Your task to perform on an android device: turn off notifications settings in the gmail app Image 0: 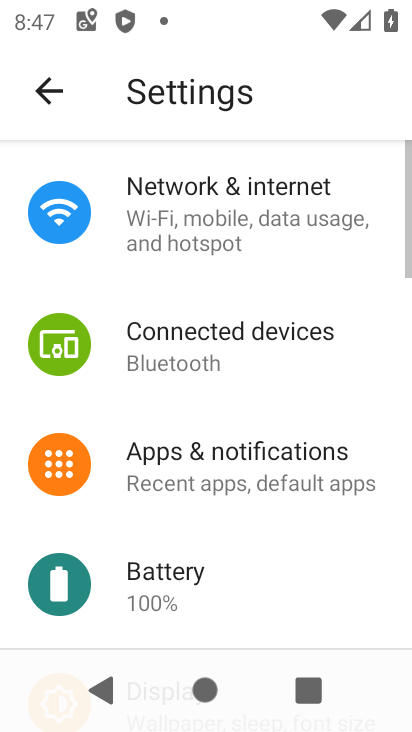
Step 0: press home button
Your task to perform on an android device: turn off notifications settings in the gmail app Image 1: 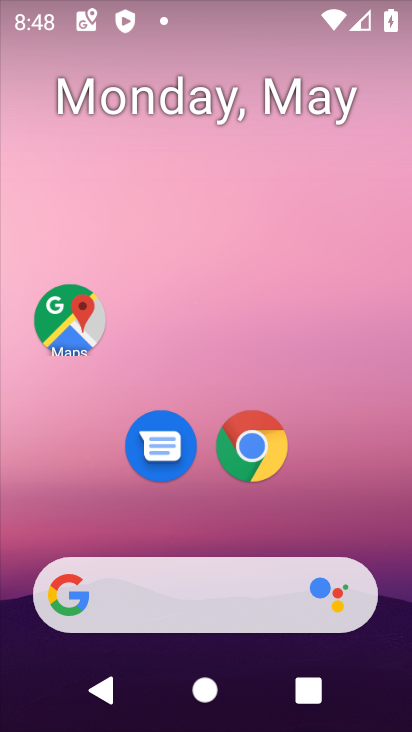
Step 1: drag from (207, 530) to (103, 16)
Your task to perform on an android device: turn off notifications settings in the gmail app Image 2: 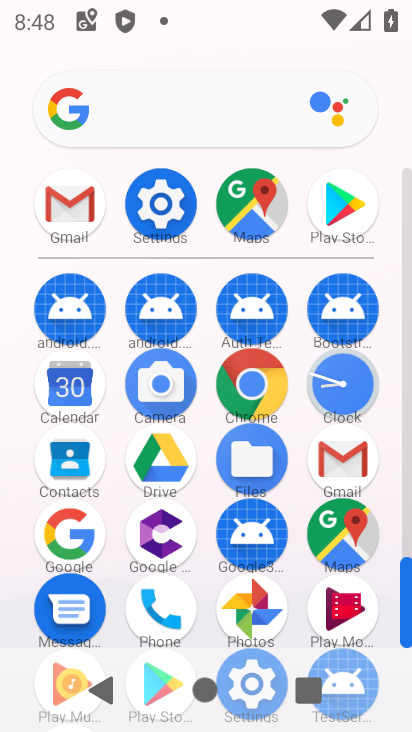
Step 2: click (66, 196)
Your task to perform on an android device: turn off notifications settings in the gmail app Image 3: 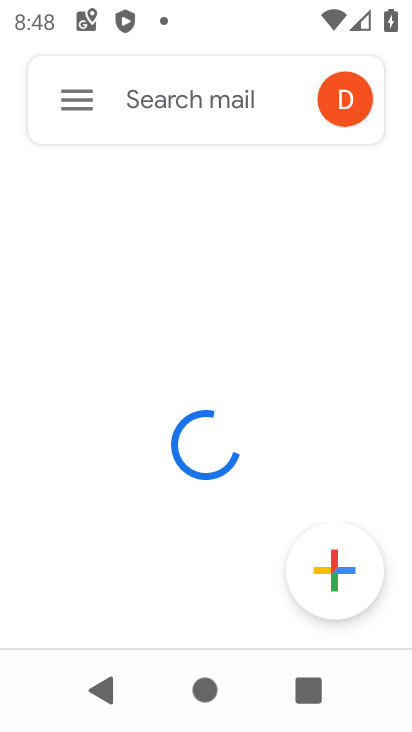
Step 3: click (63, 100)
Your task to perform on an android device: turn off notifications settings in the gmail app Image 4: 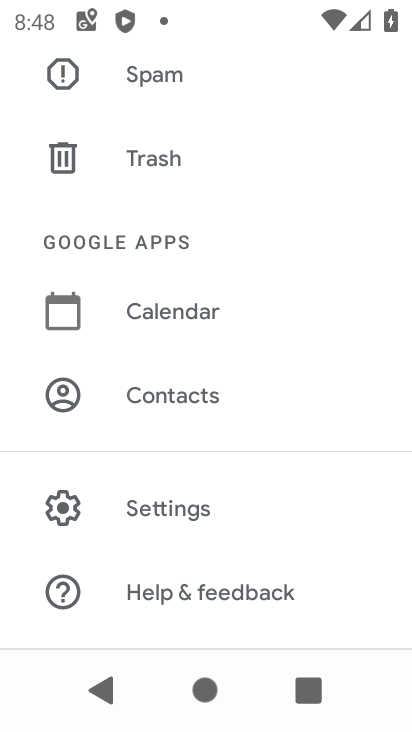
Step 4: click (223, 504)
Your task to perform on an android device: turn off notifications settings in the gmail app Image 5: 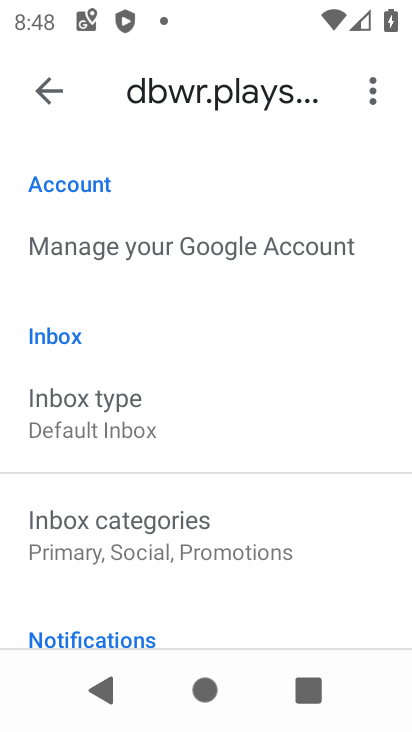
Step 5: click (50, 91)
Your task to perform on an android device: turn off notifications settings in the gmail app Image 6: 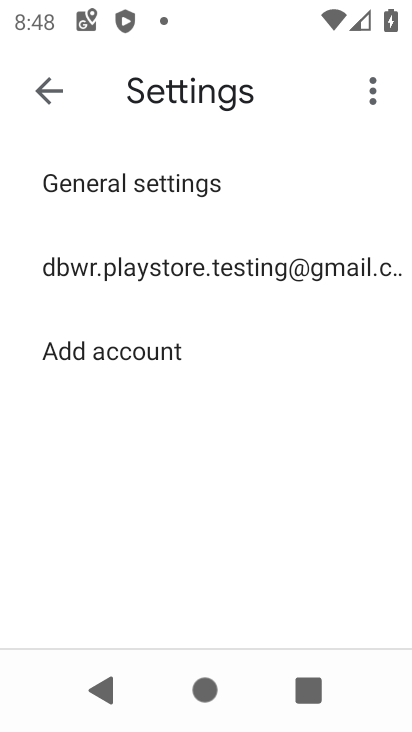
Step 6: click (236, 184)
Your task to perform on an android device: turn off notifications settings in the gmail app Image 7: 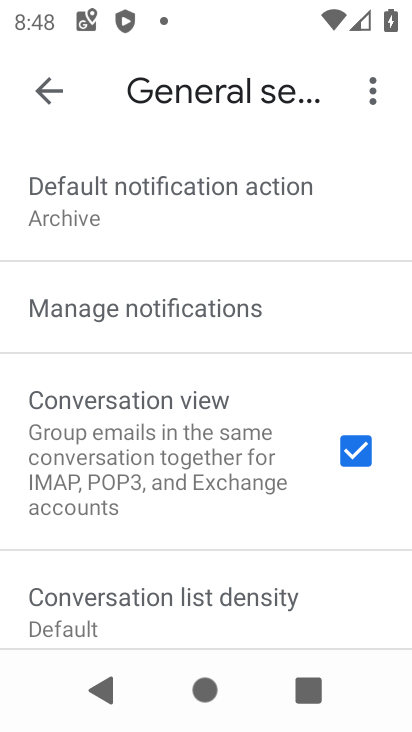
Step 7: click (280, 303)
Your task to perform on an android device: turn off notifications settings in the gmail app Image 8: 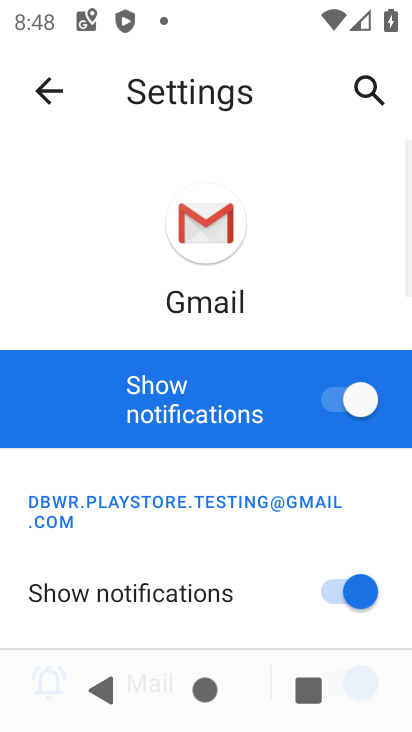
Step 8: click (342, 397)
Your task to perform on an android device: turn off notifications settings in the gmail app Image 9: 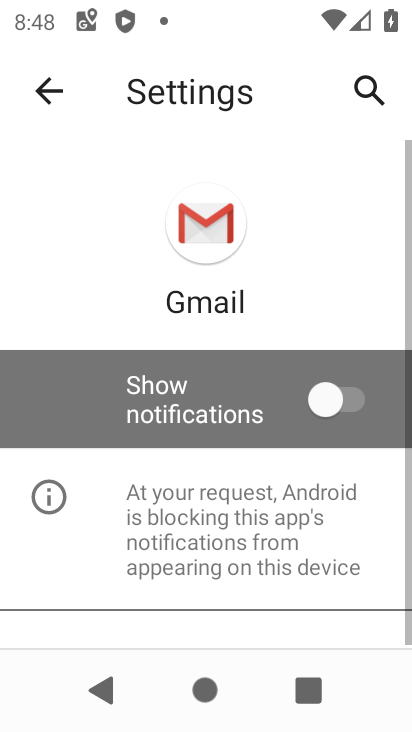
Step 9: task complete